Your task to perform on an android device: turn off improve location accuracy Image 0: 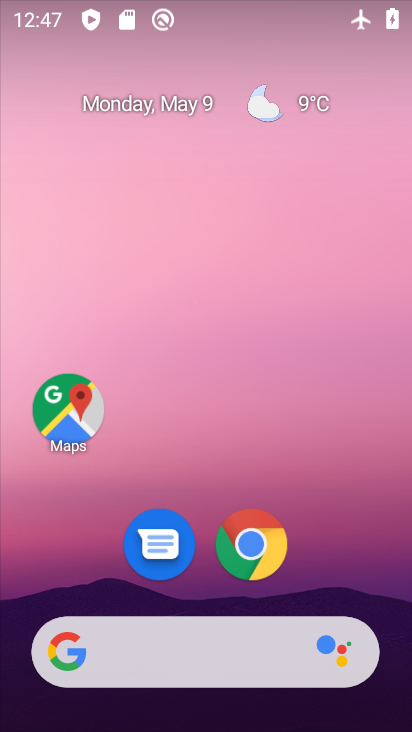
Step 0: drag from (364, 551) to (311, 3)
Your task to perform on an android device: turn off improve location accuracy Image 1: 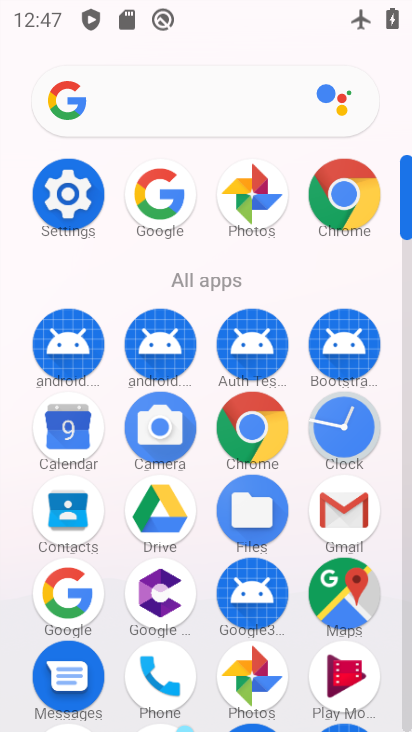
Step 1: drag from (192, 283) to (187, 82)
Your task to perform on an android device: turn off improve location accuracy Image 2: 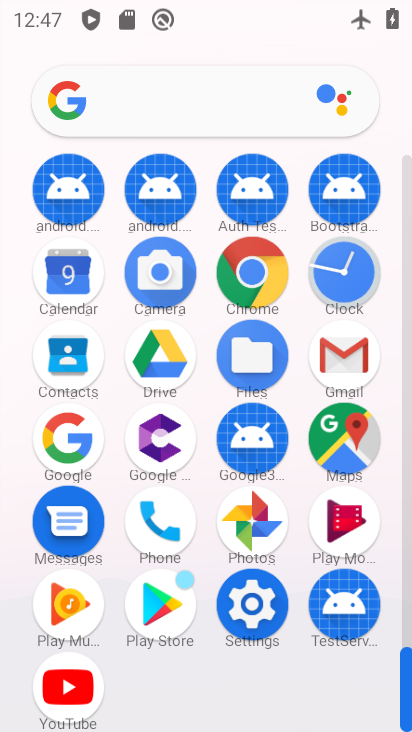
Step 2: click (242, 607)
Your task to perform on an android device: turn off improve location accuracy Image 3: 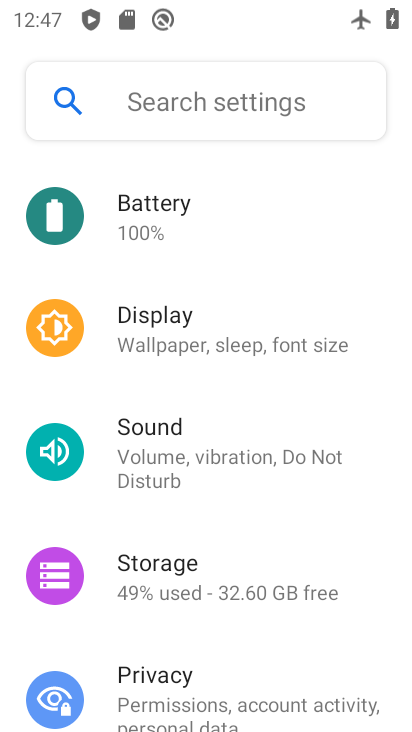
Step 3: drag from (242, 616) to (230, 275)
Your task to perform on an android device: turn off improve location accuracy Image 4: 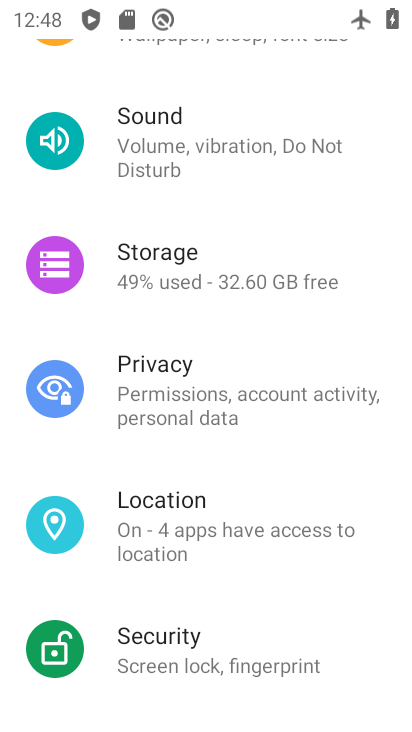
Step 4: click (171, 520)
Your task to perform on an android device: turn off improve location accuracy Image 5: 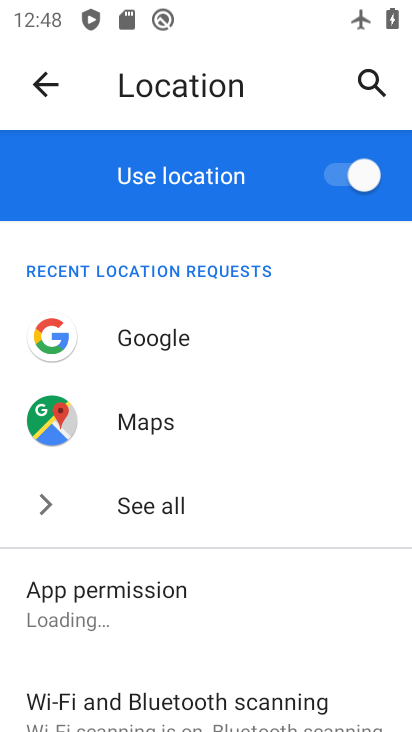
Step 5: drag from (267, 649) to (235, 217)
Your task to perform on an android device: turn off improve location accuracy Image 6: 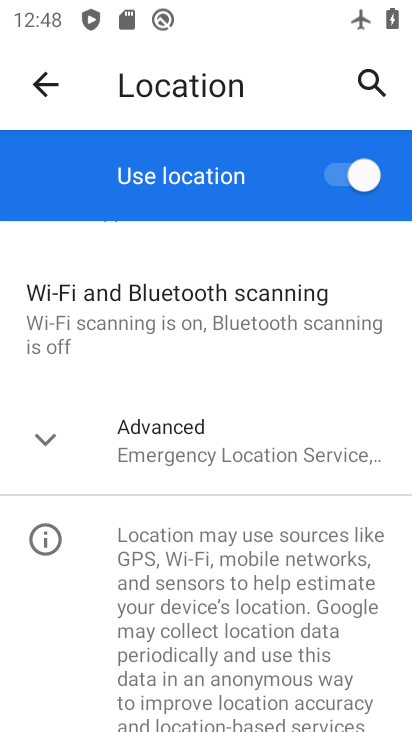
Step 6: click (182, 463)
Your task to perform on an android device: turn off improve location accuracy Image 7: 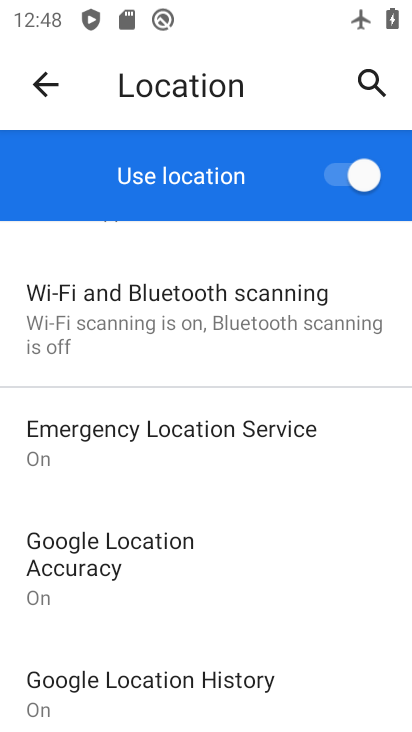
Step 7: drag from (260, 619) to (254, 433)
Your task to perform on an android device: turn off improve location accuracy Image 8: 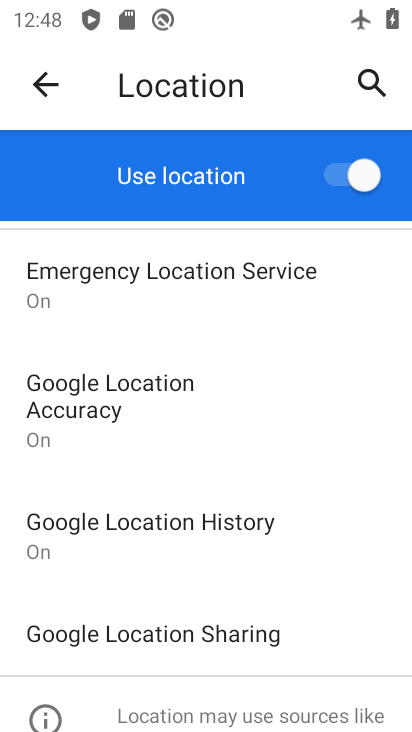
Step 8: click (146, 374)
Your task to perform on an android device: turn off improve location accuracy Image 9: 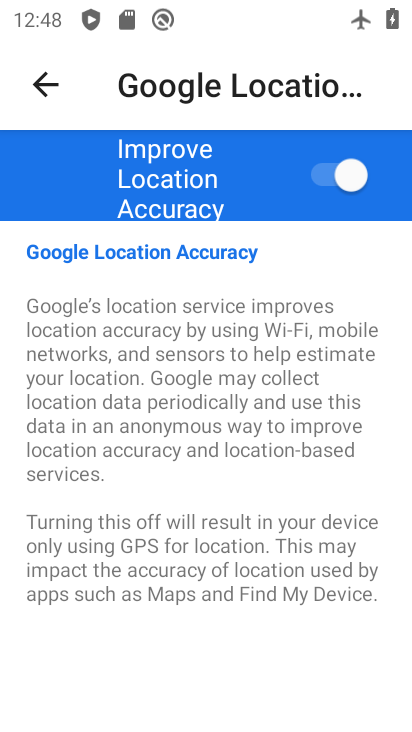
Step 9: click (345, 168)
Your task to perform on an android device: turn off improve location accuracy Image 10: 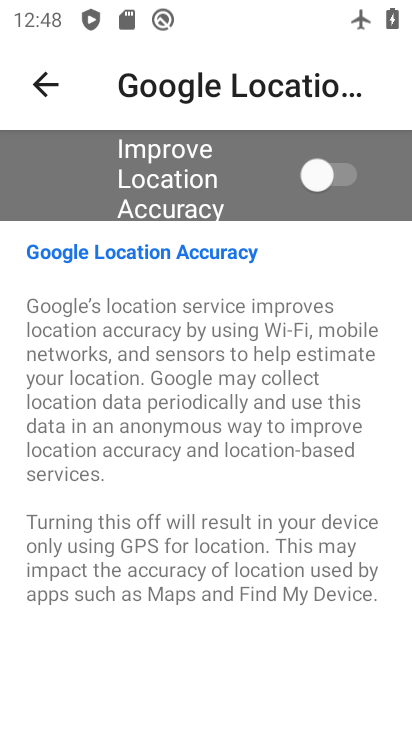
Step 10: task complete